Your task to perform on an android device: turn off data saver in the chrome app Image 0: 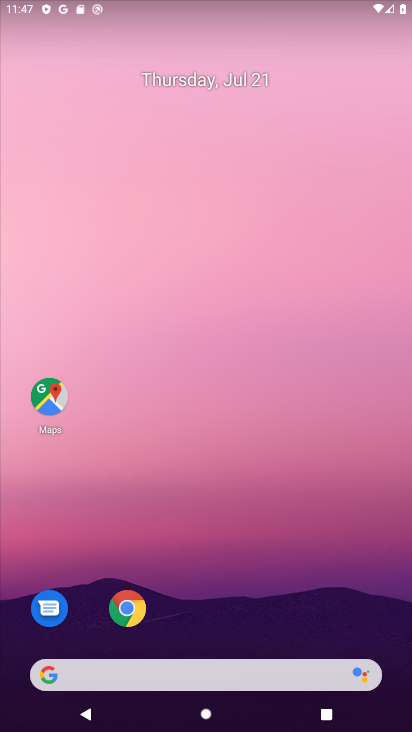
Step 0: click (127, 608)
Your task to perform on an android device: turn off data saver in the chrome app Image 1: 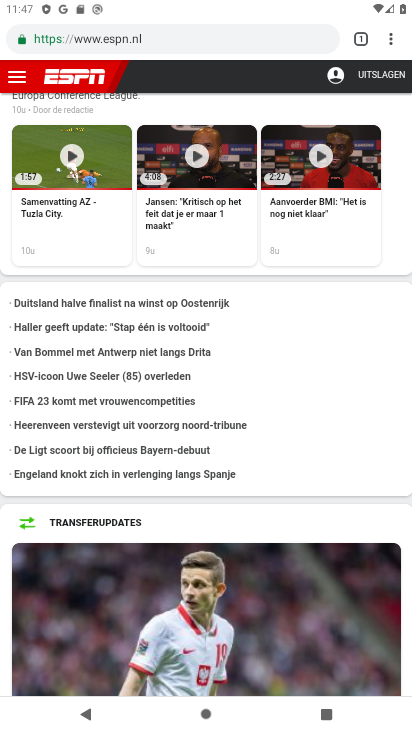
Step 1: click (390, 36)
Your task to perform on an android device: turn off data saver in the chrome app Image 2: 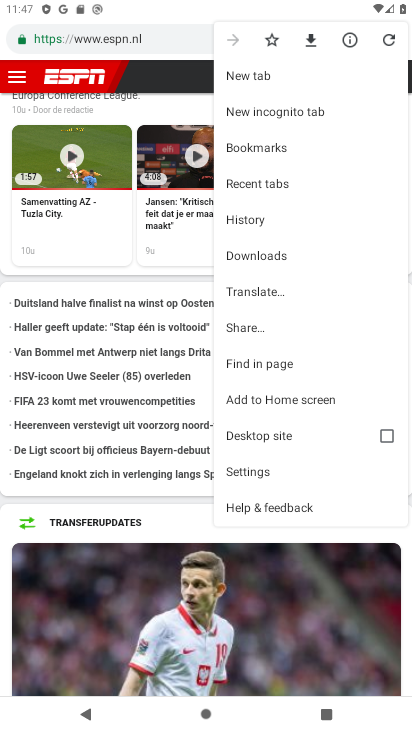
Step 2: click (273, 469)
Your task to perform on an android device: turn off data saver in the chrome app Image 3: 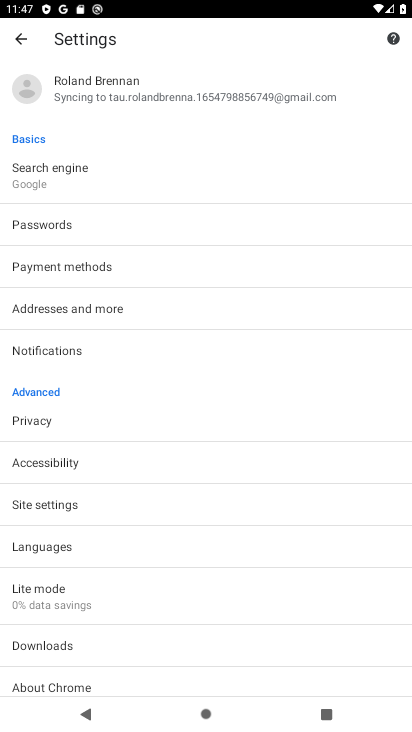
Step 3: click (81, 595)
Your task to perform on an android device: turn off data saver in the chrome app Image 4: 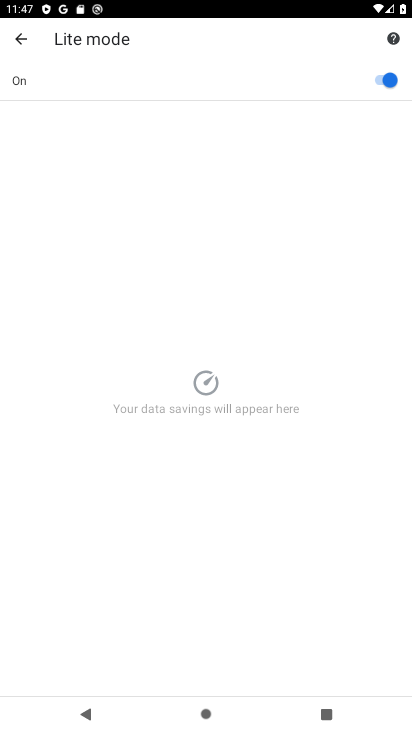
Step 4: click (394, 78)
Your task to perform on an android device: turn off data saver in the chrome app Image 5: 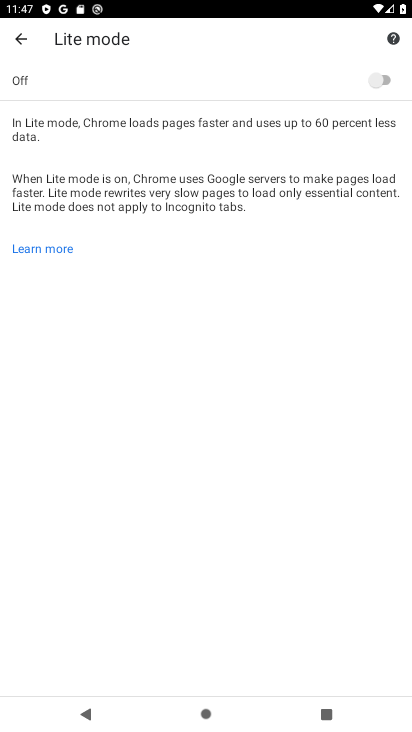
Step 5: task complete